Your task to perform on an android device: Open ESPN.com Image 0: 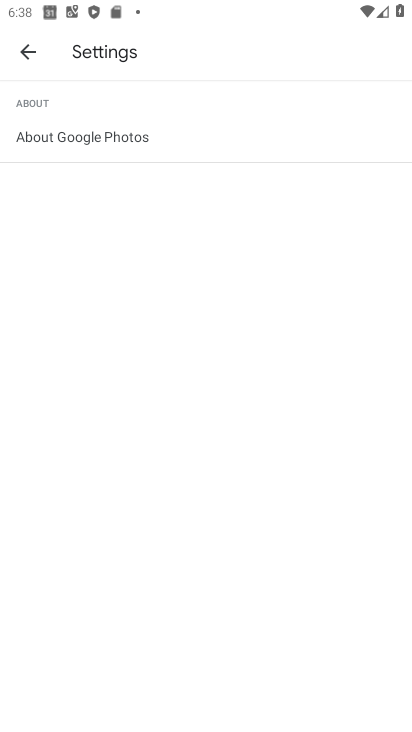
Step 0: press home button
Your task to perform on an android device: Open ESPN.com Image 1: 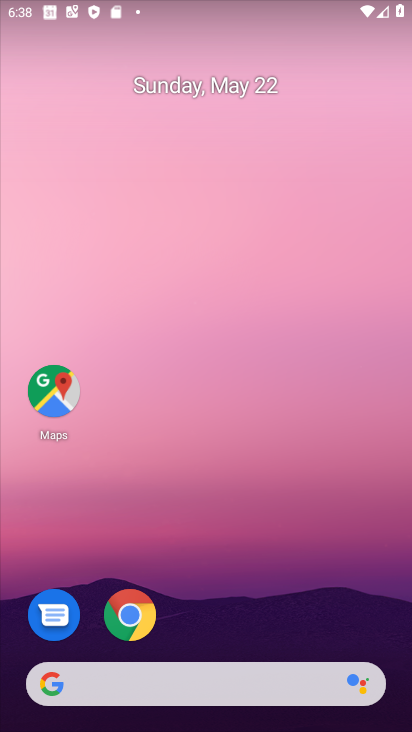
Step 1: click (129, 618)
Your task to perform on an android device: Open ESPN.com Image 2: 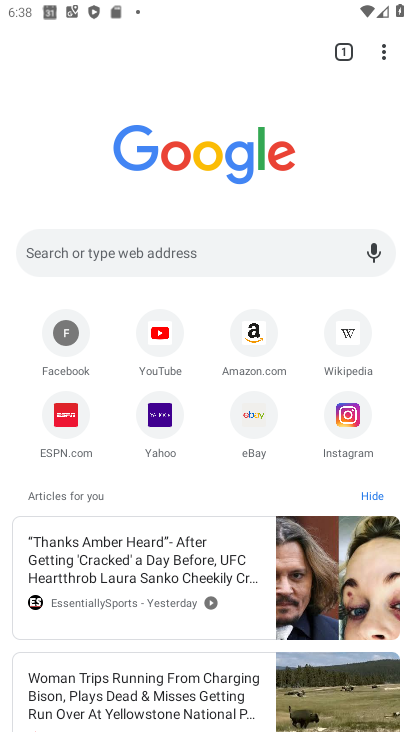
Step 2: click (61, 413)
Your task to perform on an android device: Open ESPN.com Image 3: 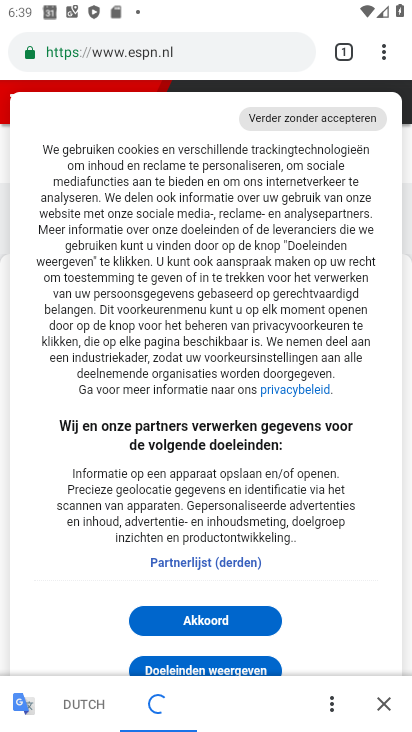
Step 3: task complete